Your task to perform on an android device: Go to location settings Image 0: 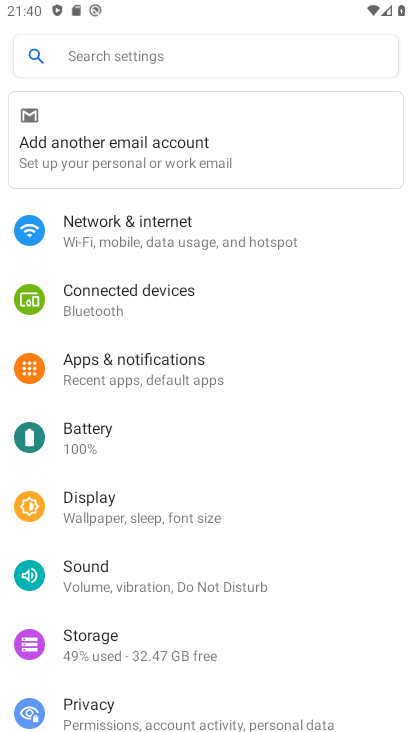
Step 0: drag from (269, 593) to (297, 113)
Your task to perform on an android device: Go to location settings Image 1: 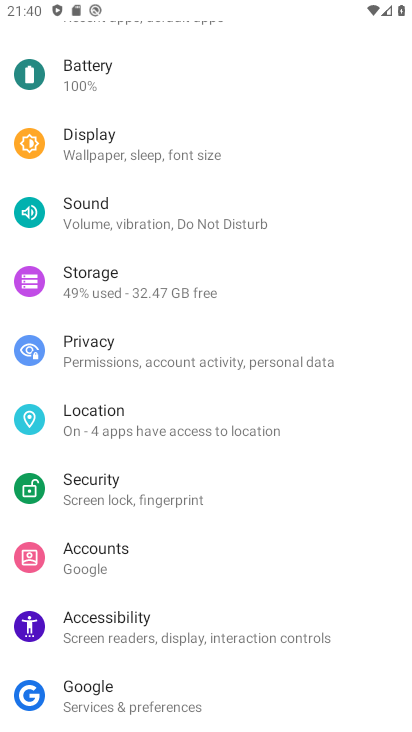
Step 1: click (117, 428)
Your task to perform on an android device: Go to location settings Image 2: 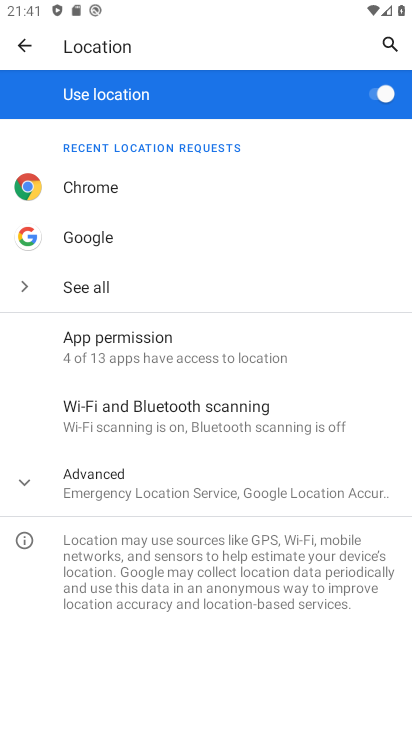
Step 2: task complete